Your task to perform on an android device: Search for dining sets on article.com Image 0: 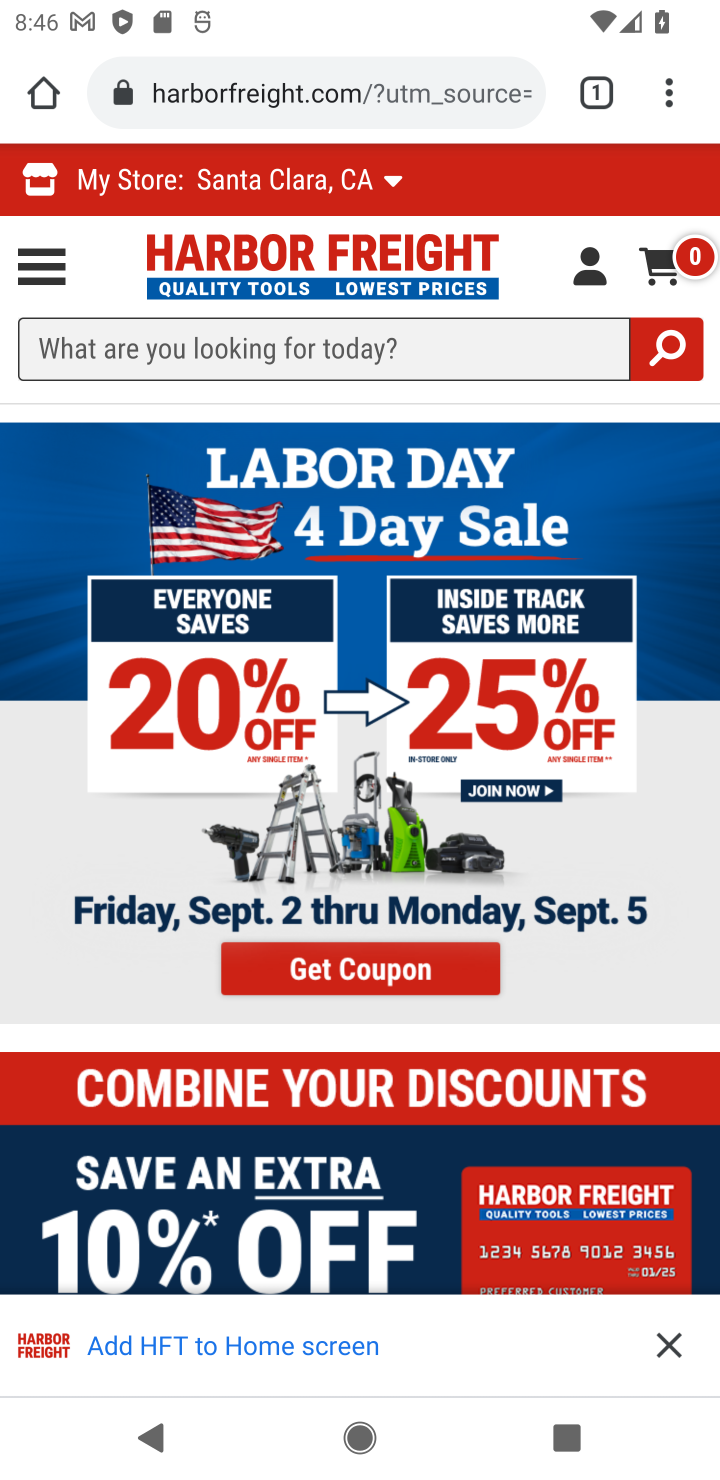
Step 0: click (519, 94)
Your task to perform on an android device: Search for dining sets on article.com Image 1: 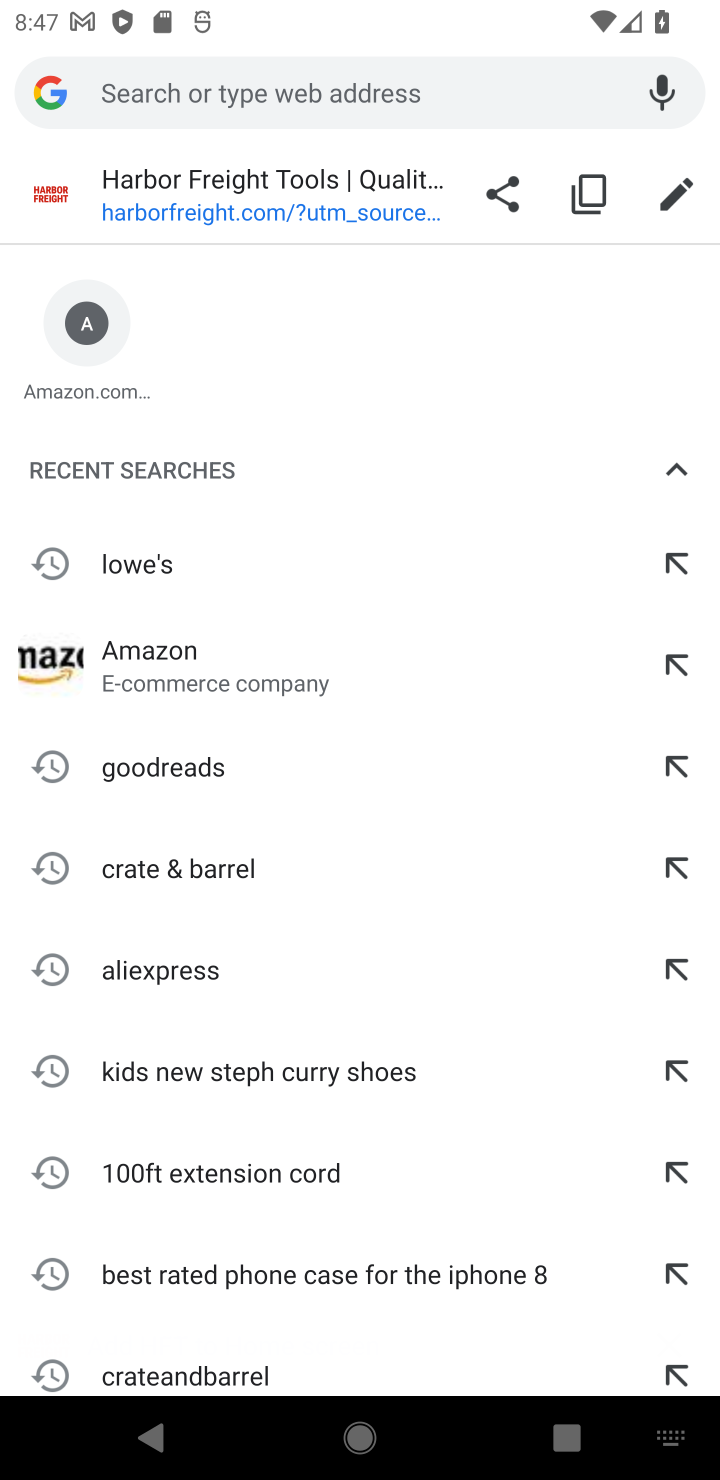
Step 1: type "article.com"
Your task to perform on an android device: Search for dining sets on article.com Image 2: 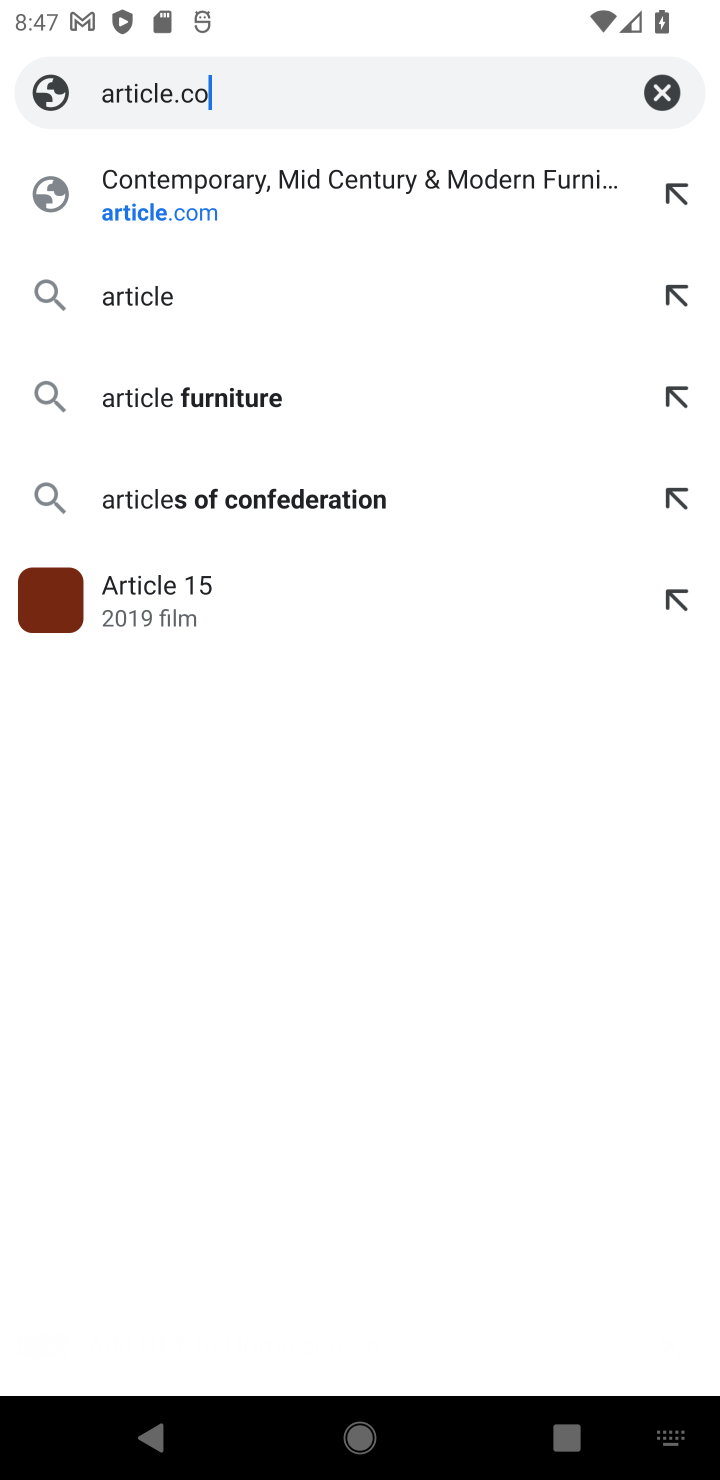
Step 2: press enter
Your task to perform on an android device: Search for dining sets on article.com Image 3: 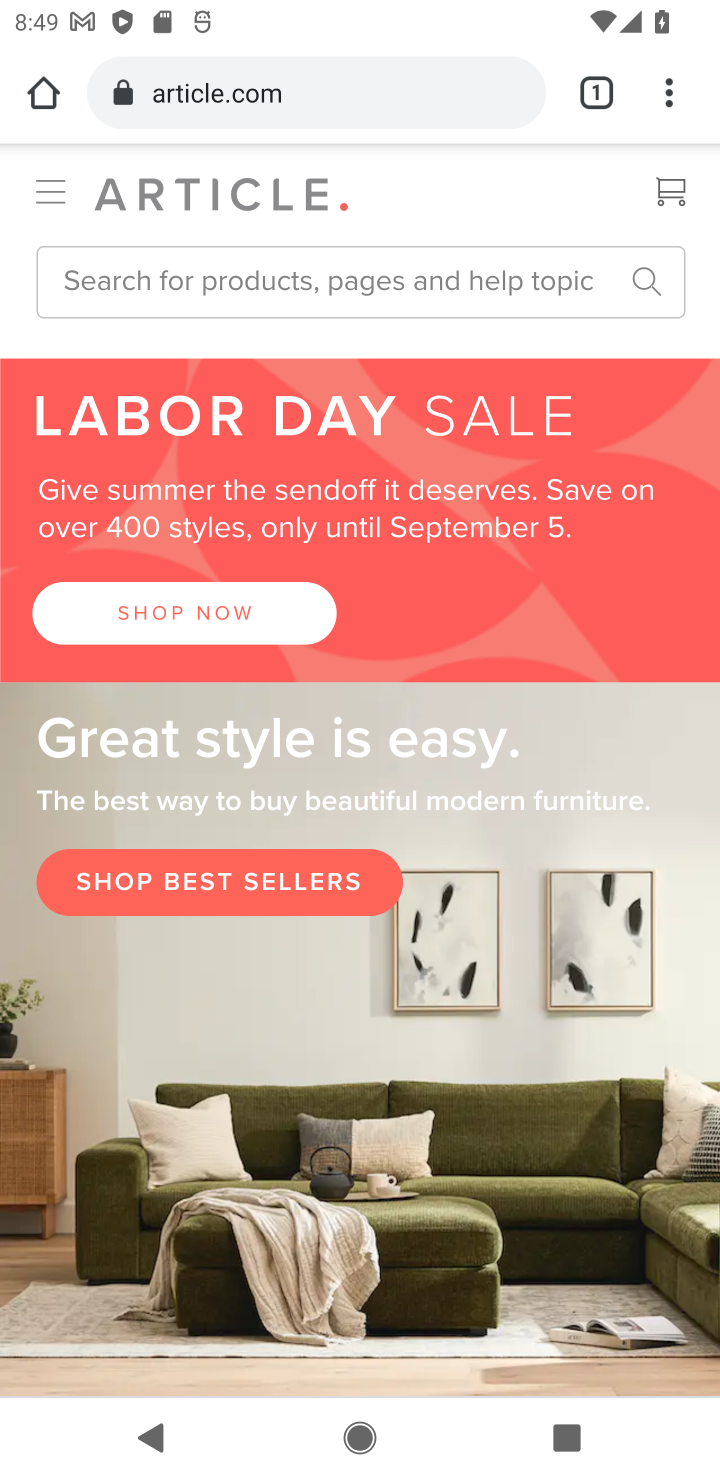
Step 3: click (237, 317)
Your task to perform on an android device: Search for dining sets on article.com Image 4: 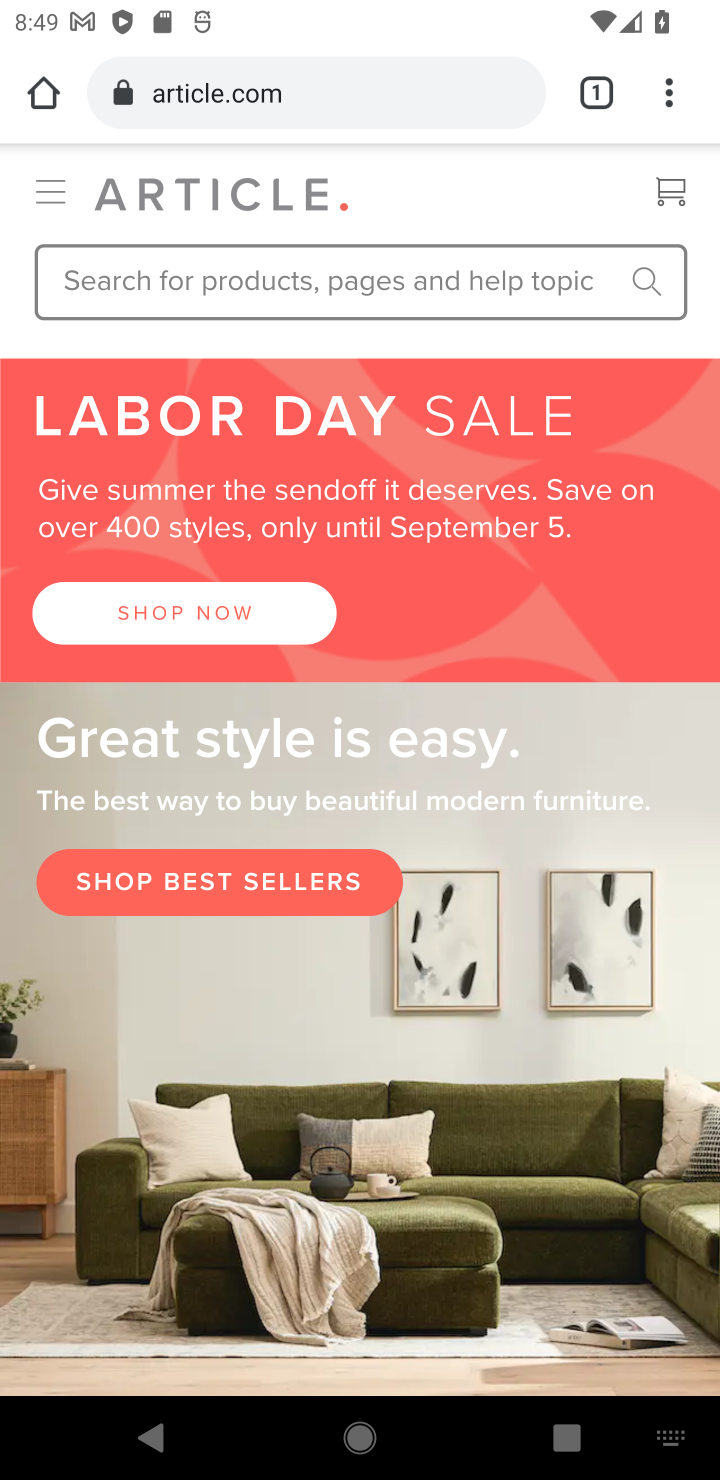
Step 4: press enter
Your task to perform on an android device: Search for dining sets on article.com Image 5: 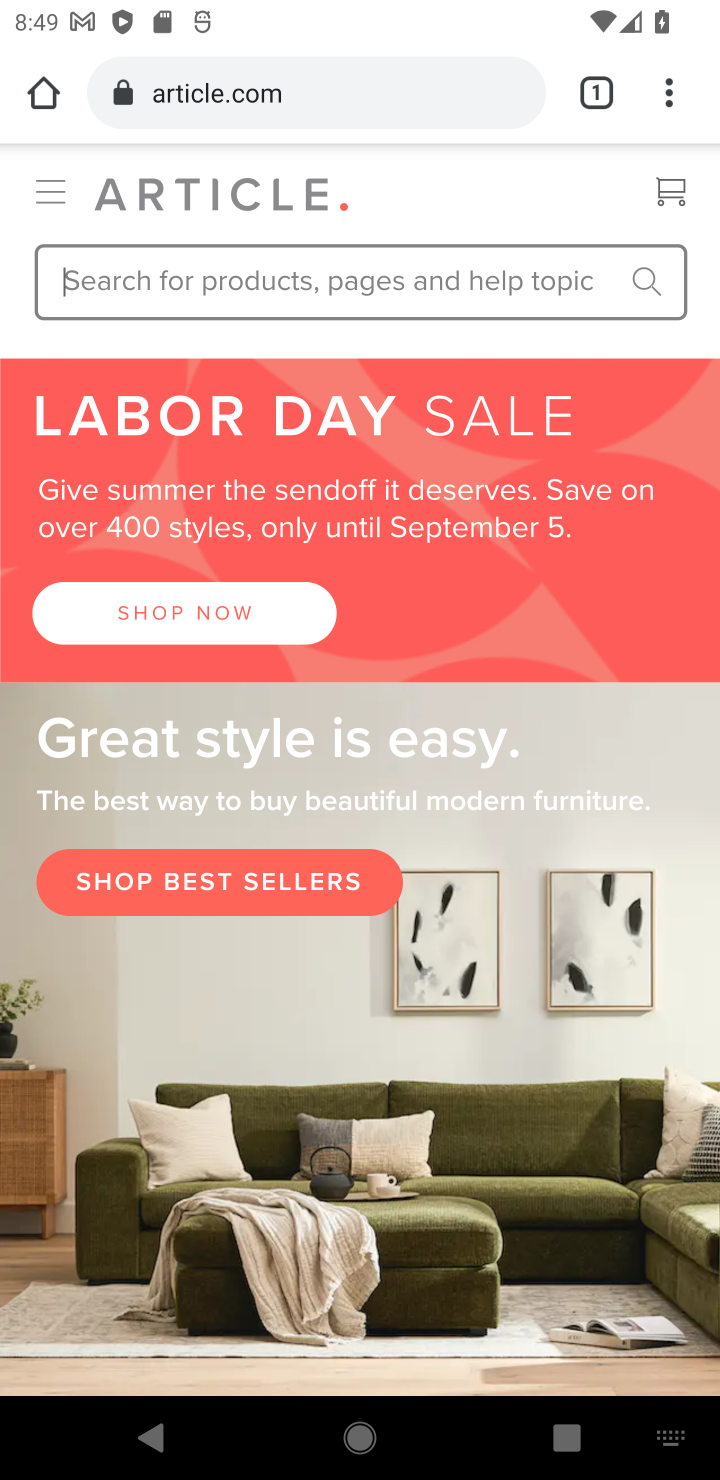
Step 5: type "dining set"
Your task to perform on an android device: Search for dining sets on article.com Image 6: 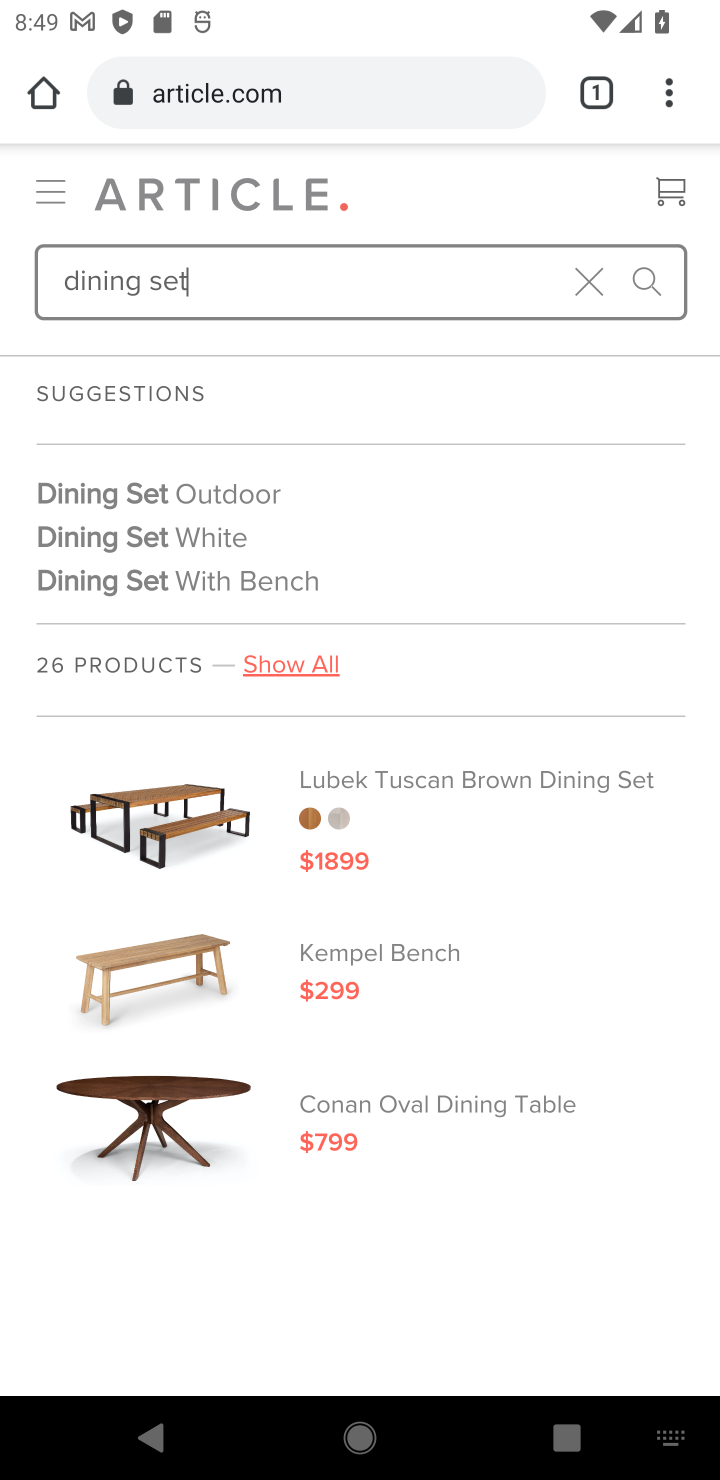
Step 6: task complete